Your task to perform on an android device: What is the recent news? Image 0: 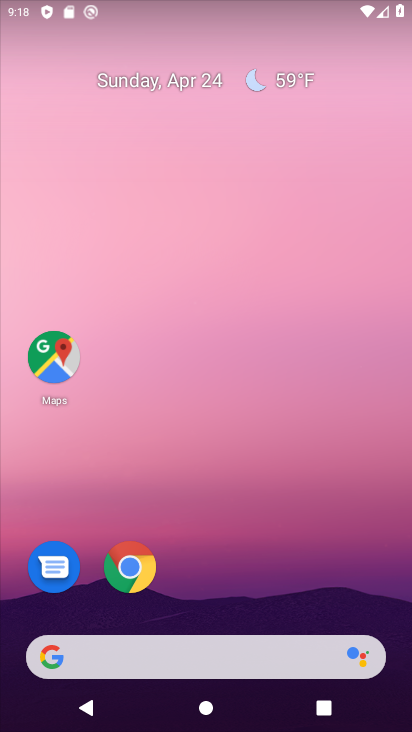
Step 0: drag from (187, 229) to (336, 224)
Your task to perform on an android device: What is the recent news? Image 1: 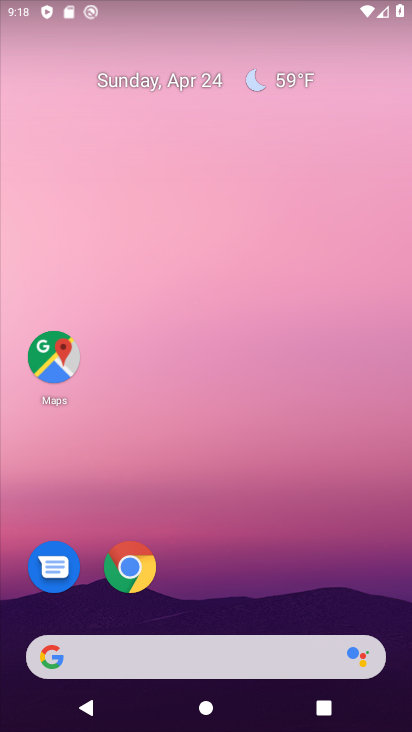
Step 1: drag from (2, 259) to (308, 265)
Your task to perform on an android device: What is the recent news? Image 2: 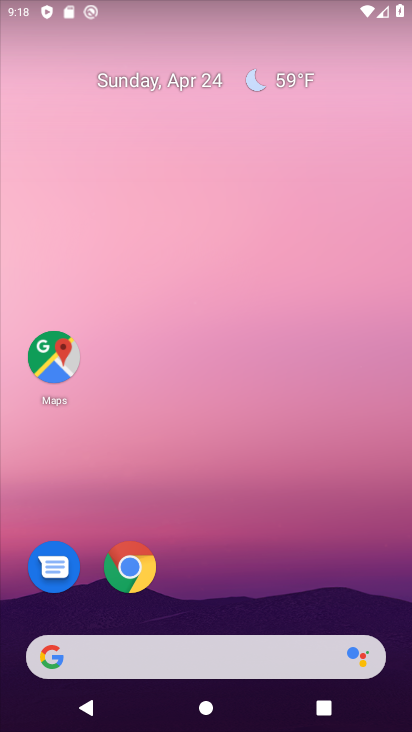
Step 2: drag from (392, 653) to (304, 202)
Your task to perform on an android device: What is the recent news? Image 3: 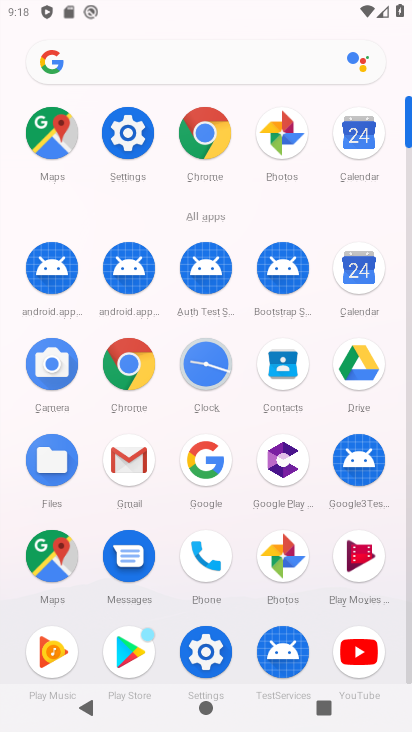
Step 3: click (212, 453)
Your task to perform on an android device: What is the recent news? Image 4: 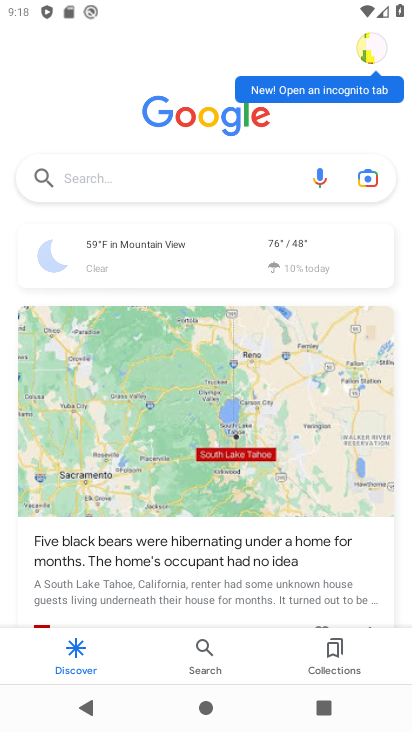
Step 4: click (97, 168)
Your task to perform on an android device: What is the recent news? Image 5: 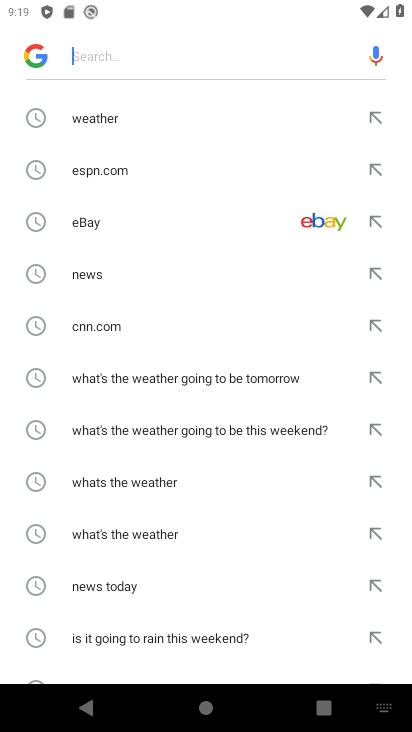
Step 5: press back button
Your task to perform on an android device: What is the recent news? Image 6: 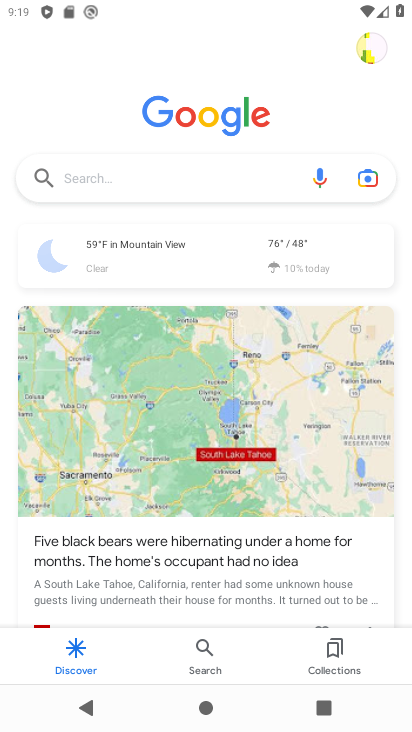
Step 6: press back button
Your task to perform on an android device: What is the recent news? Image 7: 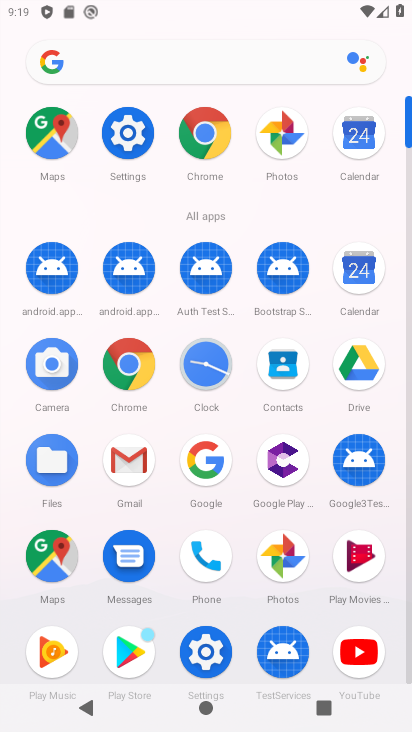
Step 7: click (213, 441)
Your task to perform on an android device: What is the recent news? Image 8: 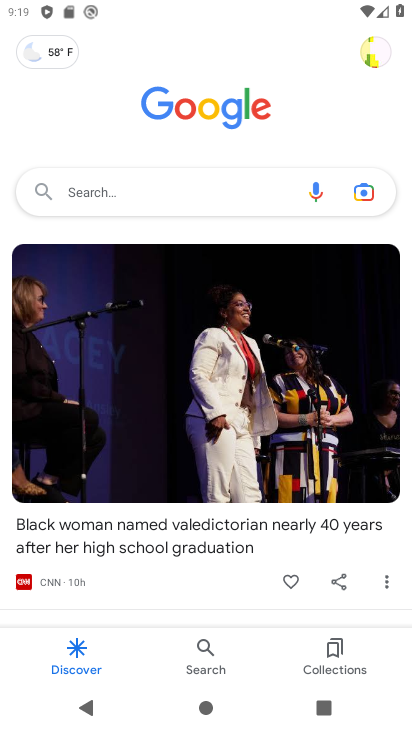
Step 8: task complete